Your task to perform on an android device: all mails in gmail Image 0: 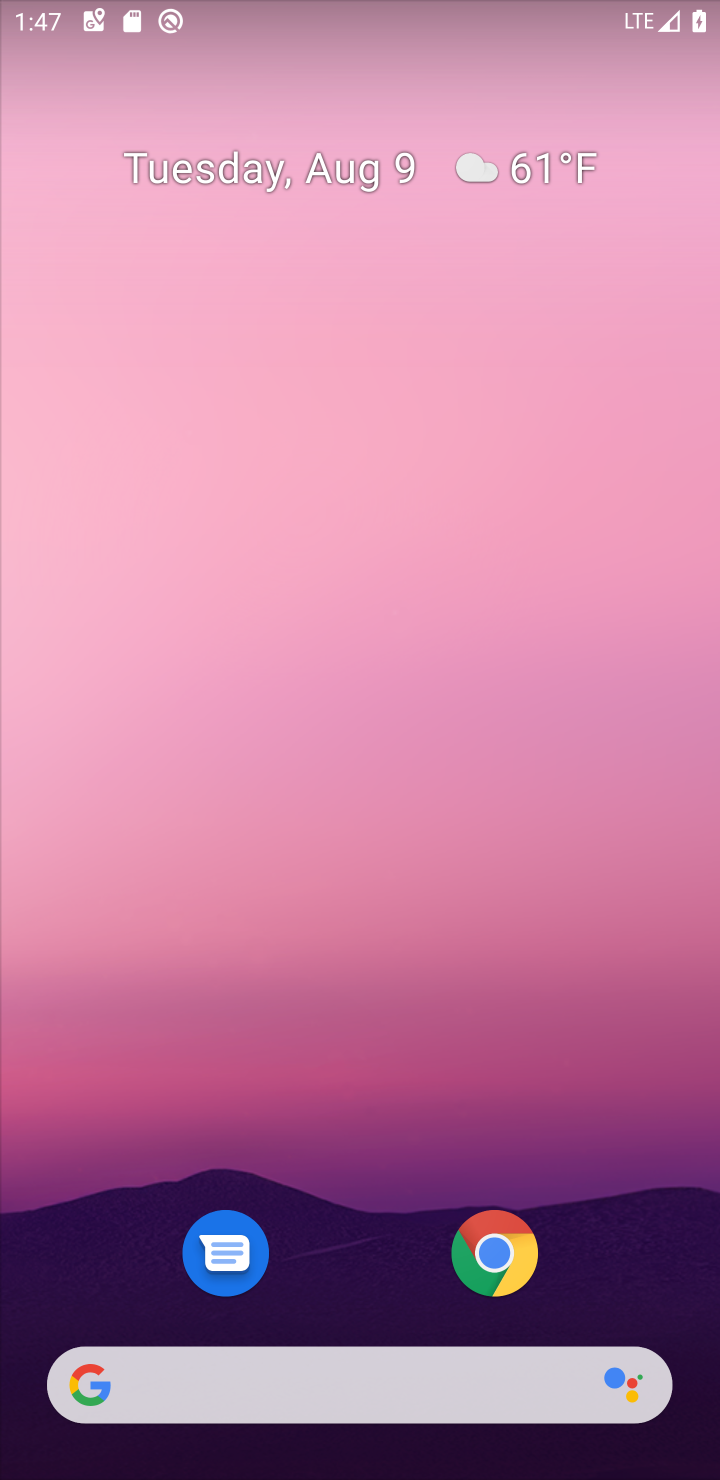
Step 0: drag from (663, 1237) to (325, 35)
Your task to perform on an android device: all mails in gmail Image 1: 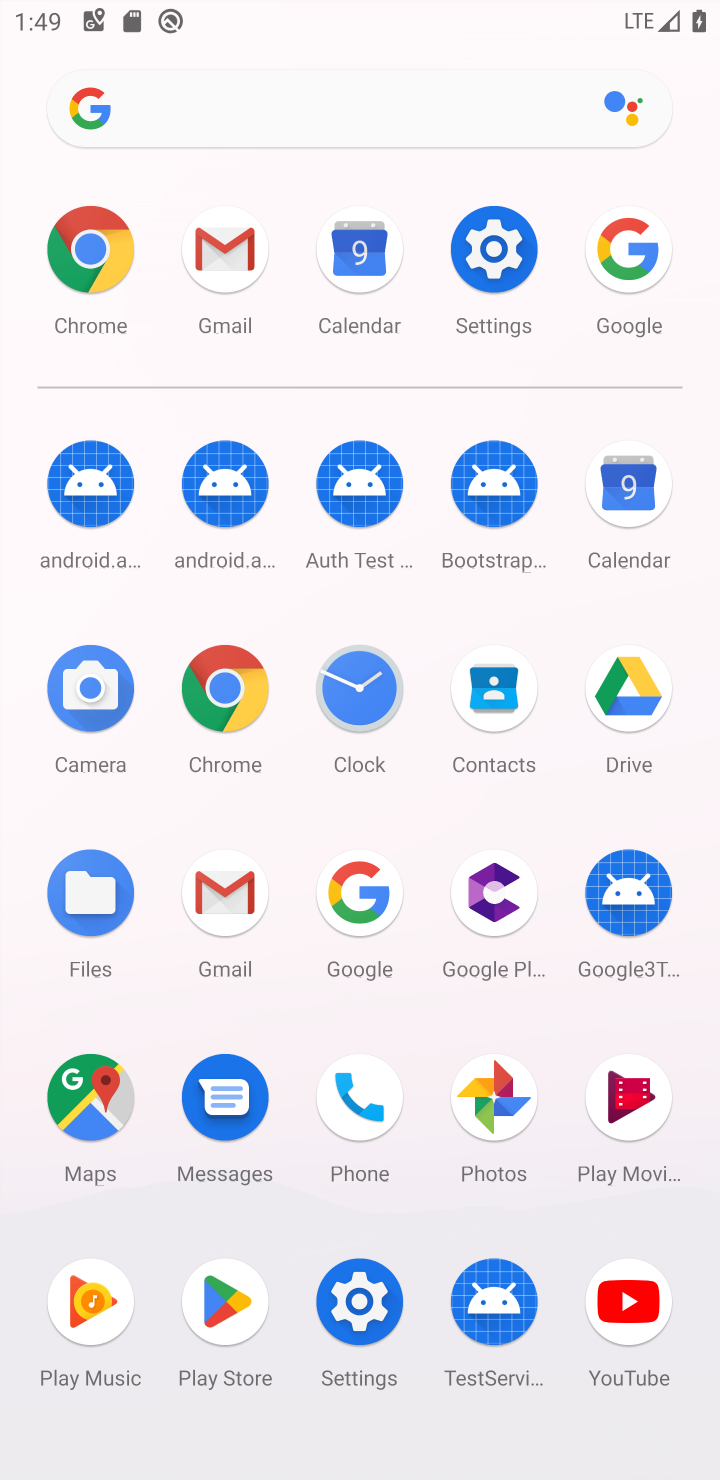
Step 1: click (237, 898)
Your task to perform on an android device: all mails in gmail Image 2: 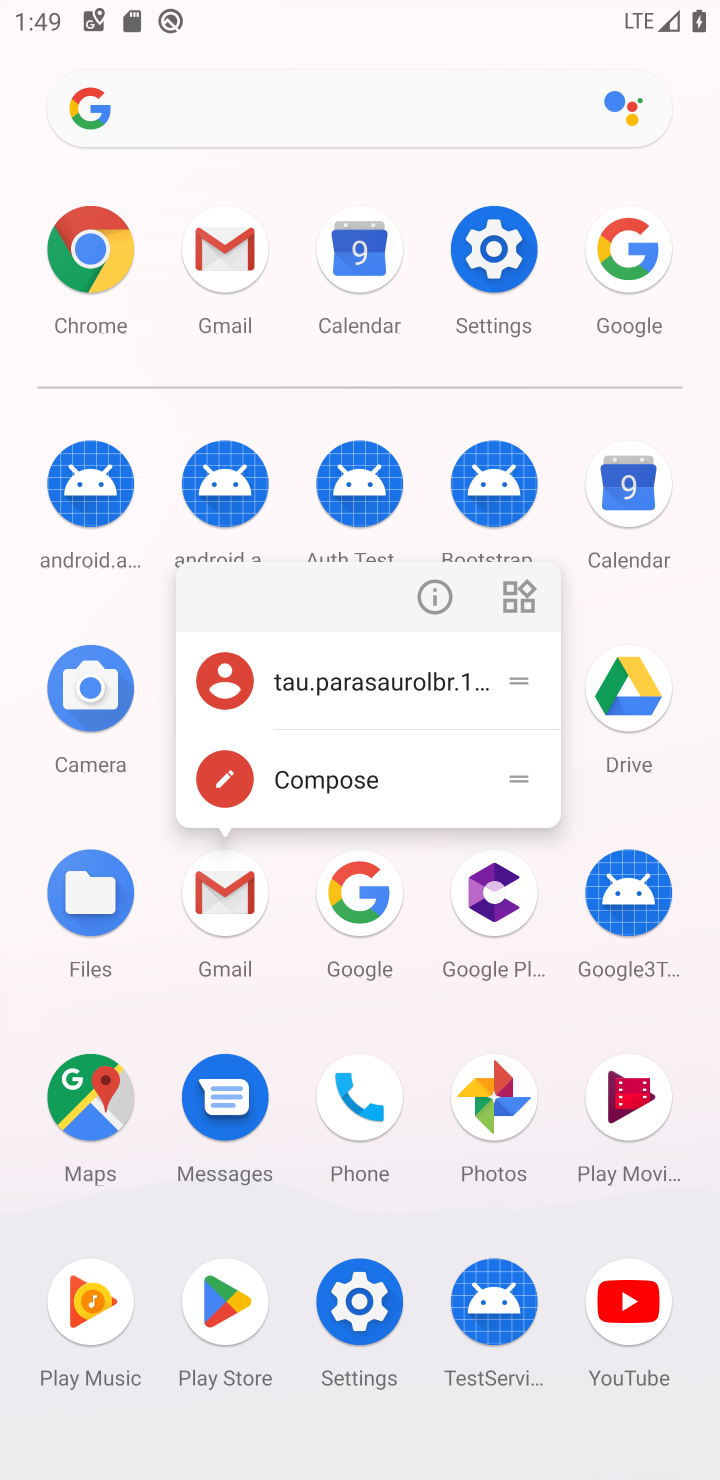
Step 2: click (237, 889)
Your task to perform on an android device: all mails in gmail Image 3: 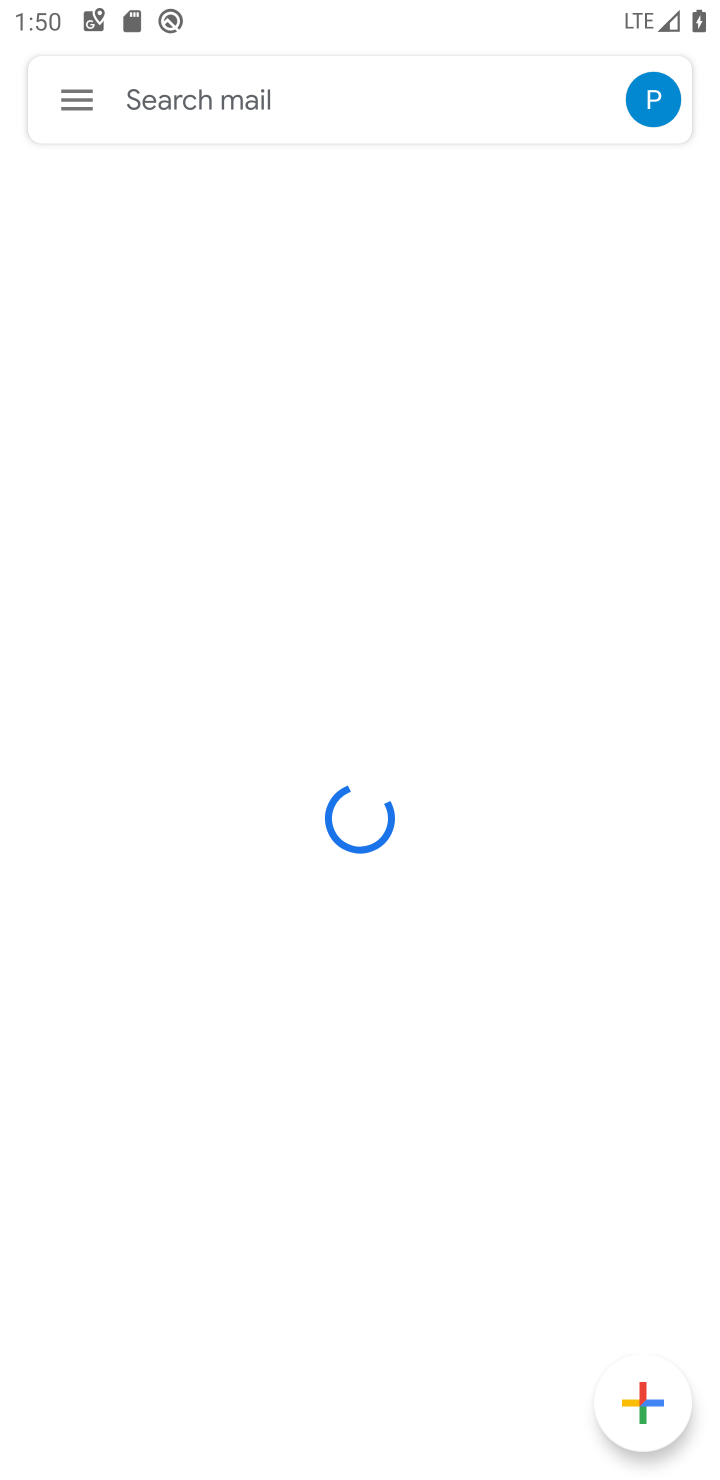
Step 3: click (55, 104)
Your task to perform on an android device: all mails in gmail Image 4: 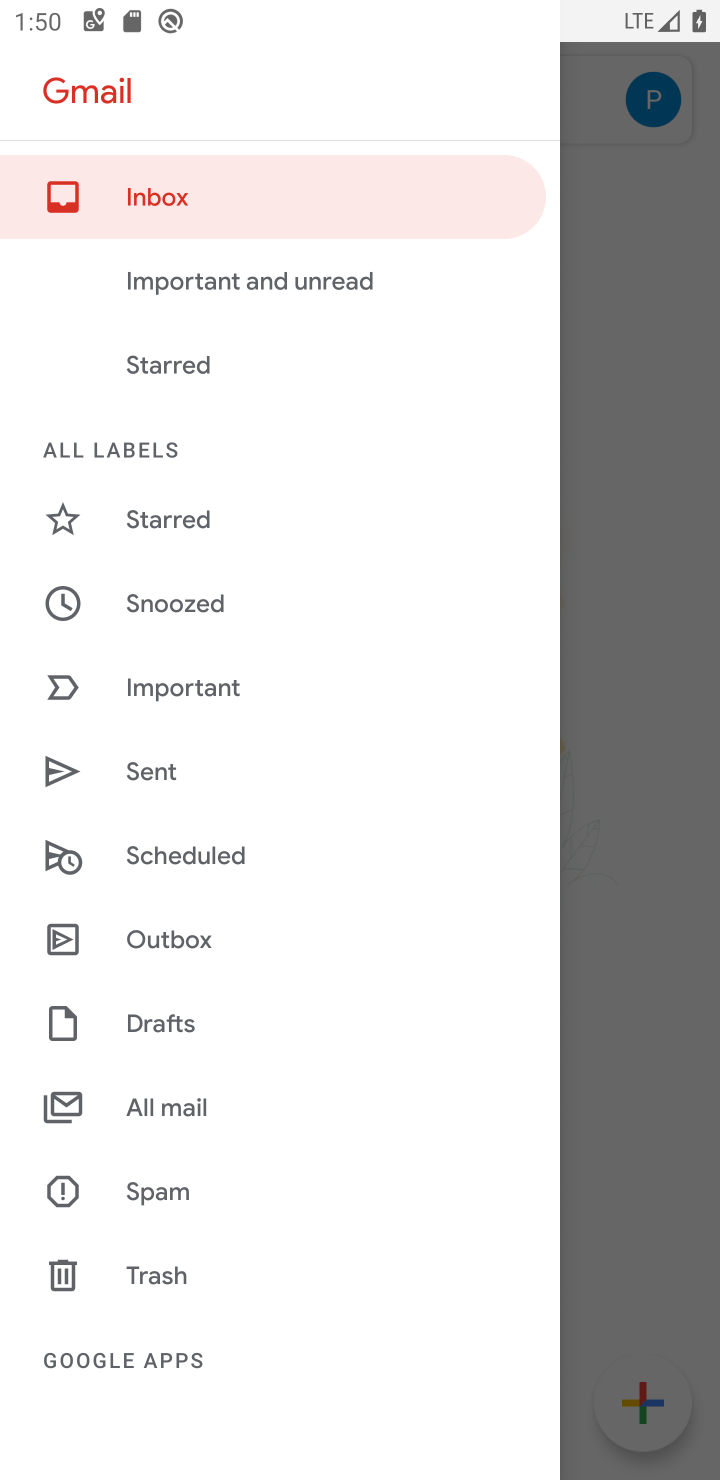
Step 4: click (141, 1135)
Your task to perform on an android device: all mails in gmail Image 5: 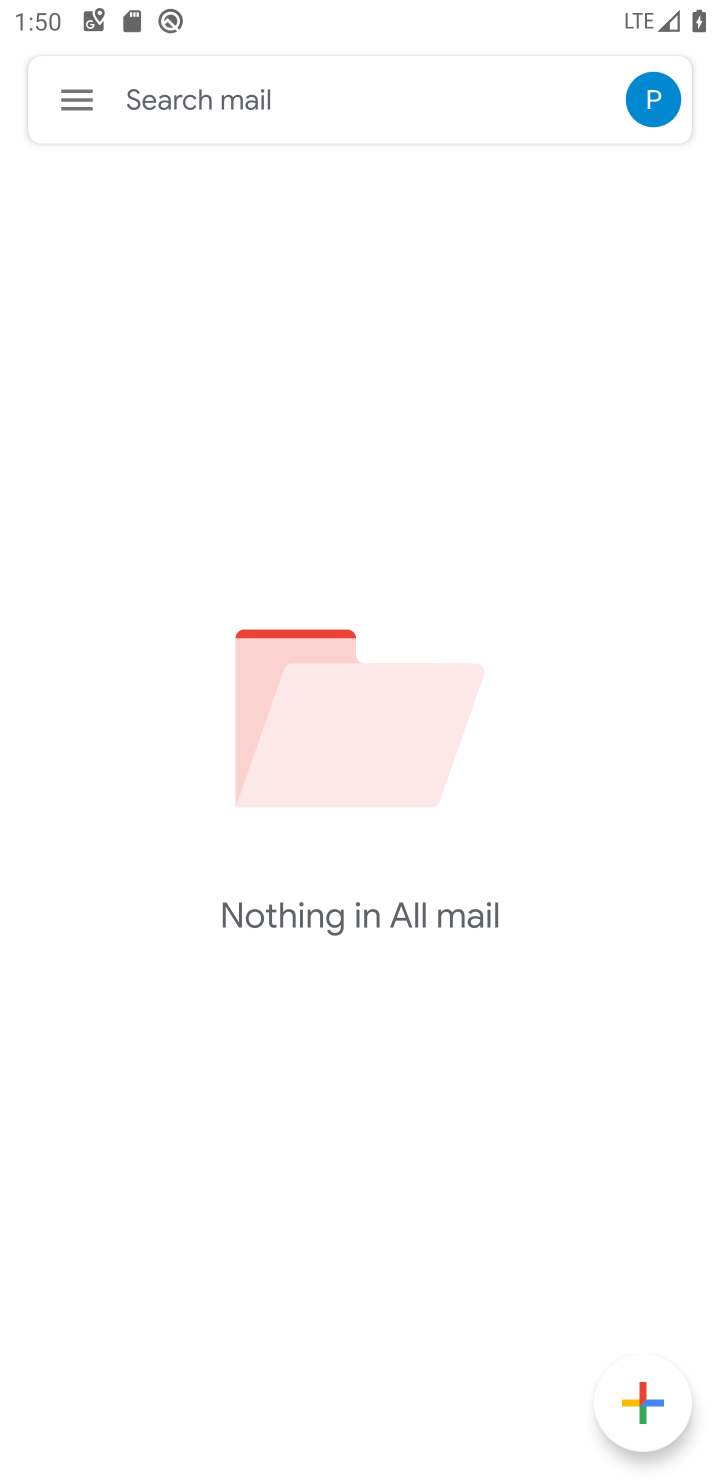
Step 5: task complete